Your task to perform on an android device: Open Chrome and go to the settings page Image 0: 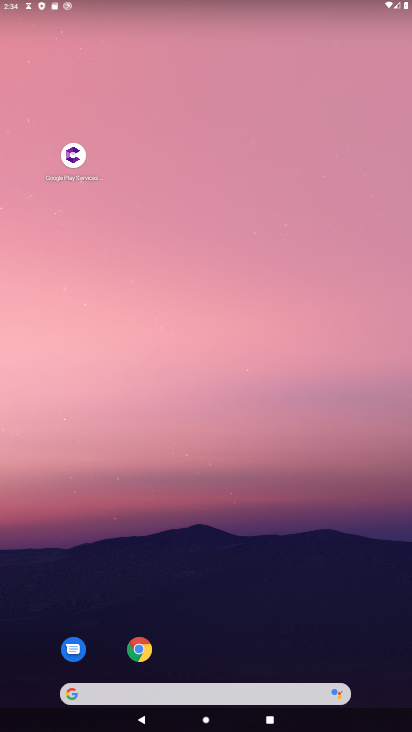
Step 0: click (140, 653)
Your task to perform on an android device: Open Chrome and go to the settings page Image 1: 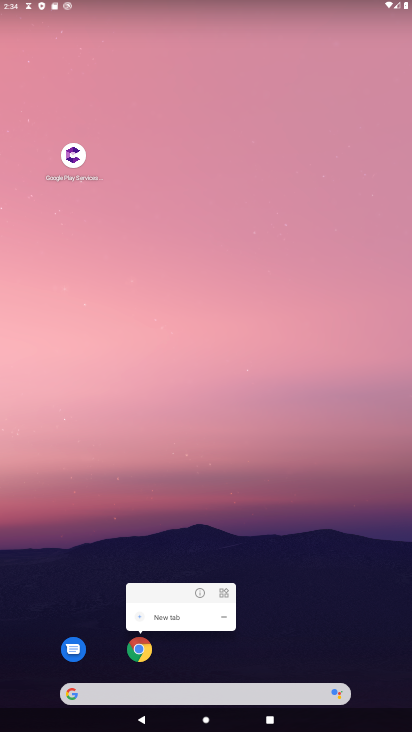
Step 1: click (135, 659)
Your task to perform on an android device: Open Chrome and go to the settings page Image 2: 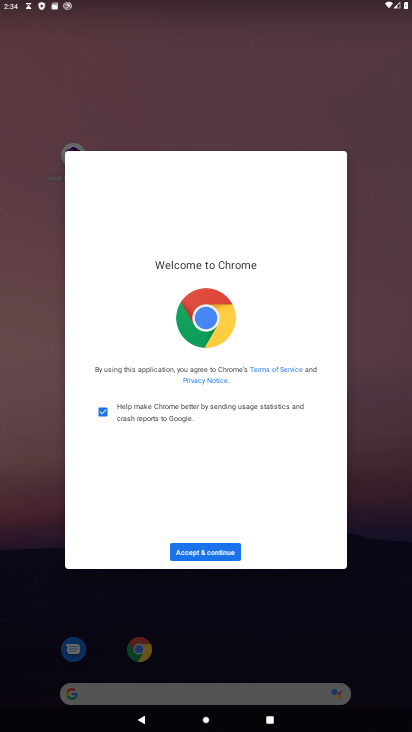
Step 2: click (214, 549)
Your task to perform on an android device: Open Chrome and go to the settings page Image 3: 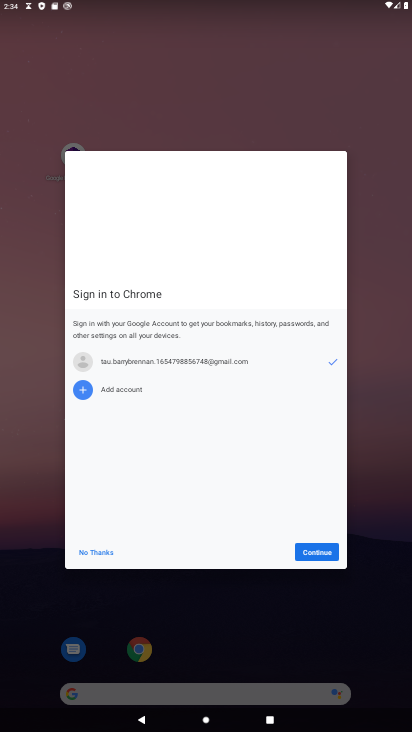
Step 3: click (323, 551)
Your task to perform on an android device: Open Chrome and go to the settings page Image 4: 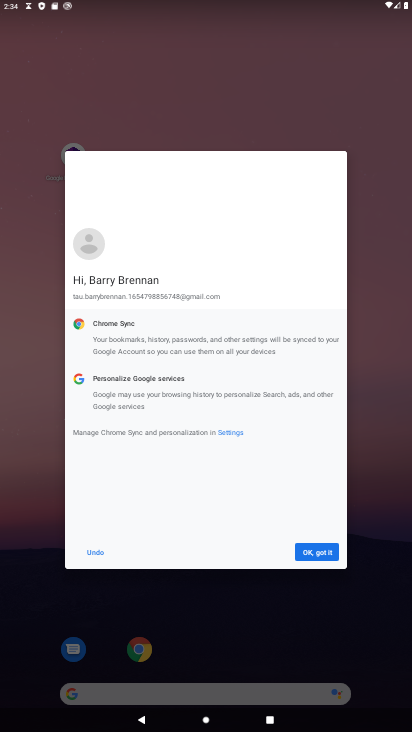
Step 4: click (322, 553)
Your task to perform on an android device: Open Chrome and go to the settings page Image 5: 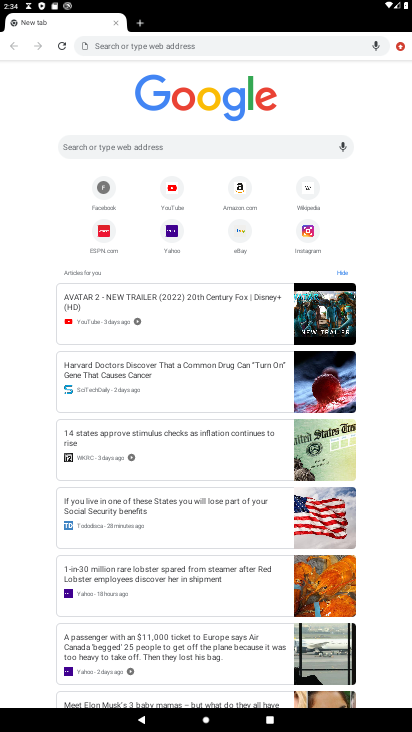
Step 5: click (398, 43)
Your task to perform on an android device: Open Chrome and go to the settings page Image 6: 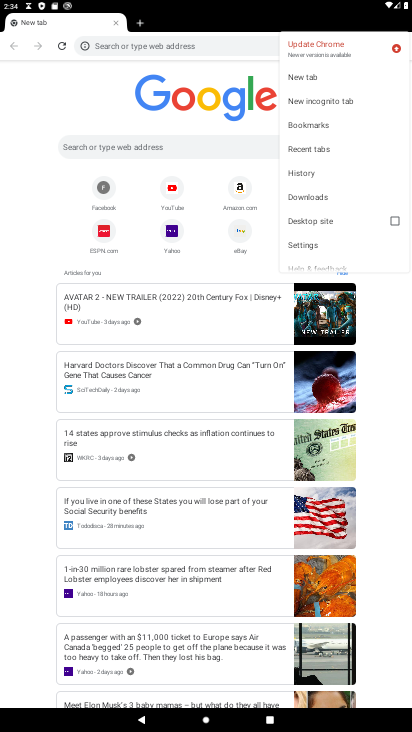
Step 6: click (306, 243)
Your task to perform on an android device: Open Chrome and go to the settings page Image 7: 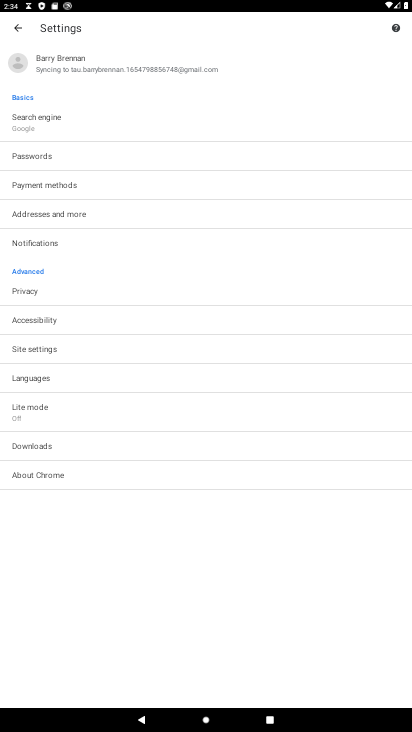
Step 7: task complete